Your task to perform on an android device: When is my next meeting? Image 0: 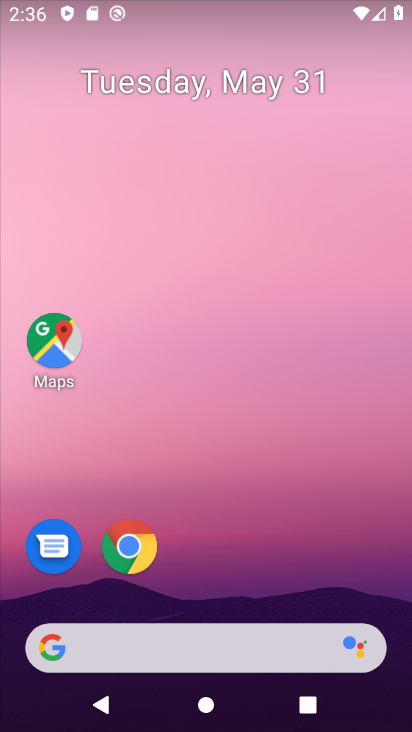
Step 0: drag from (208, 538) to (233, 17)
Your task to perform on an android device: When is my next meeting? Image 1: 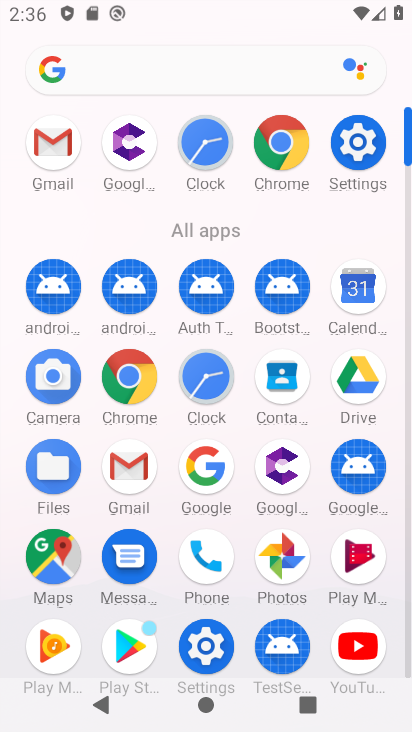
Step 1: click (359, 292)
Your task to perform on an android device: When is my next meeting? Image 2: 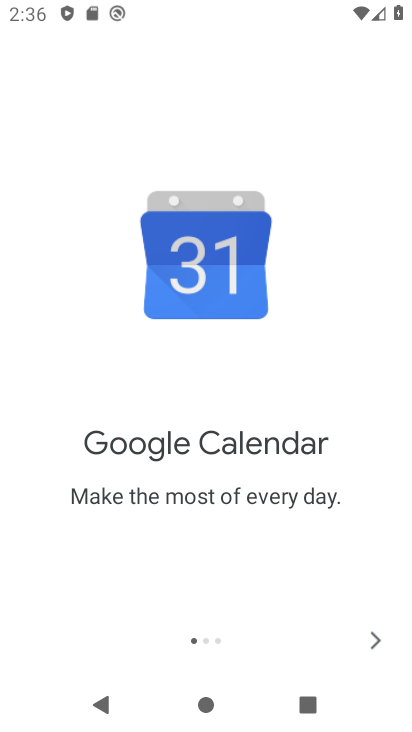
Step 2: click (370, 629)
Your task to perform on an android device: When is my next meeting? Image 3: 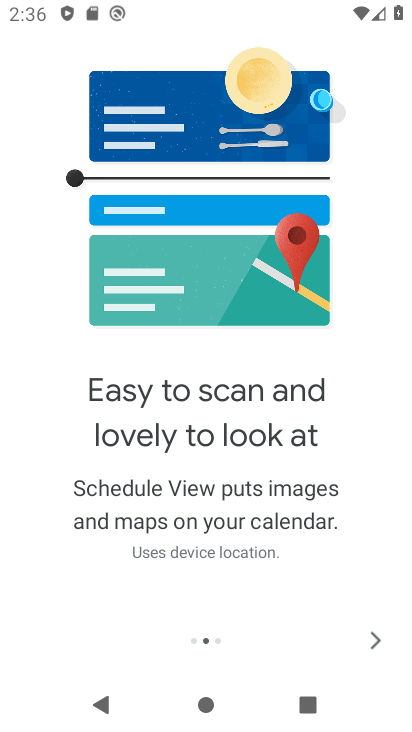
Step 3: click (372, 640)
Your task to perform on an android device: When is my next meeting? Image 4: 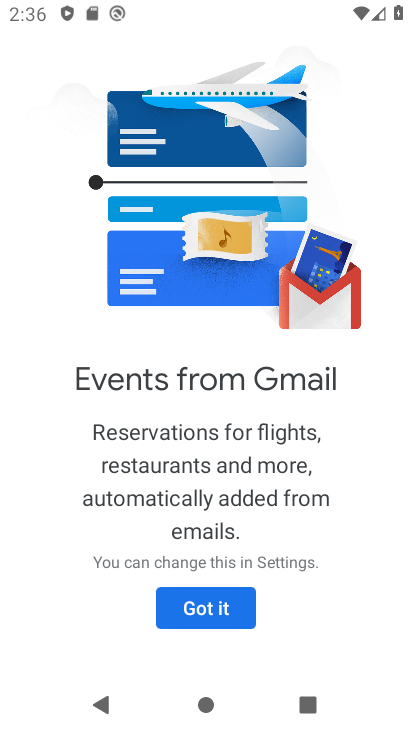
Step 4: click (237, 604)
Your task to perform on an android device: When is my next meeting? Image 5: 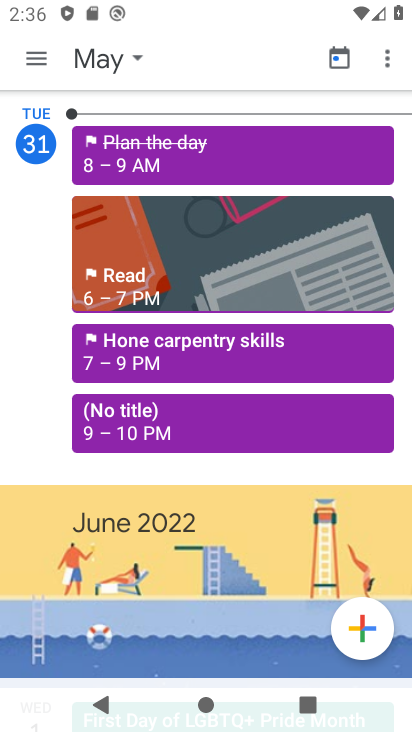
Step 5: task complete